Your task to perform on an android device: Check the weather Image 0: 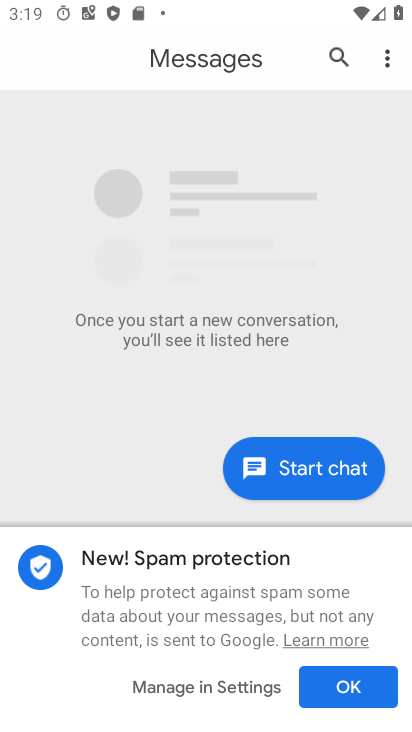
Step 0: press home button
Your task to perform on an android device: Check the weather Image 1: 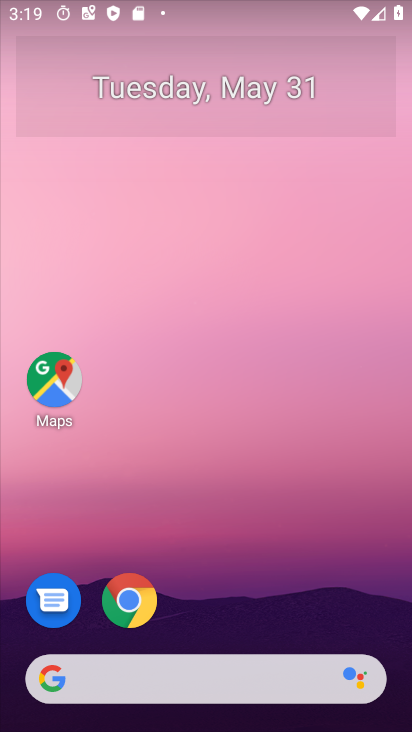
Step 1: drag from (214, 635) to (283, 690)
Your task to perform on an android device: Check the weather Image 2: 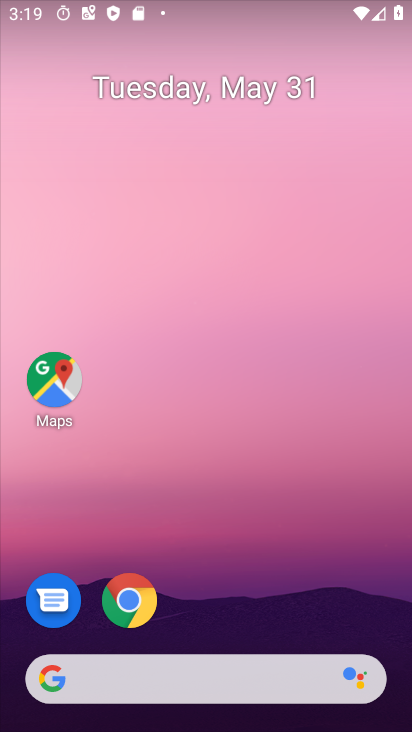
Step 2: drag from (9, 288) to (390, 293)
Your task to perform on an android device: Check the weather Image 3: 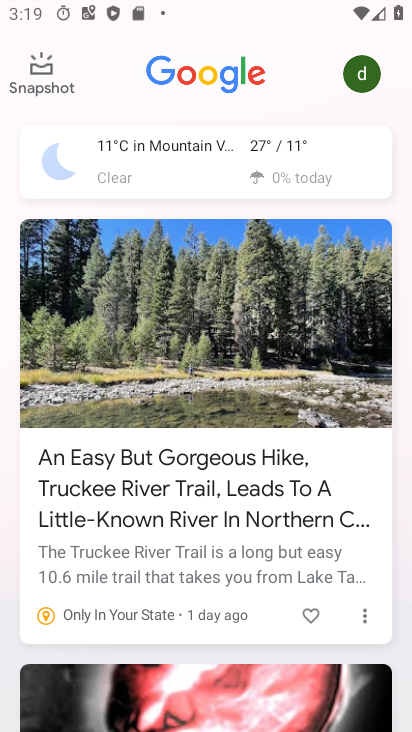
Step 3: click (280, 143)
Your task to perform on an android device: Check the weather Image 4: 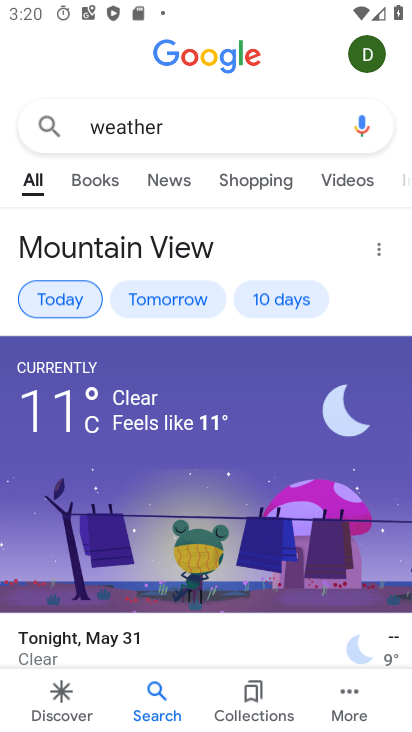
Step 4: task complete